Your task to perform on an android device: check google app version Image 0: 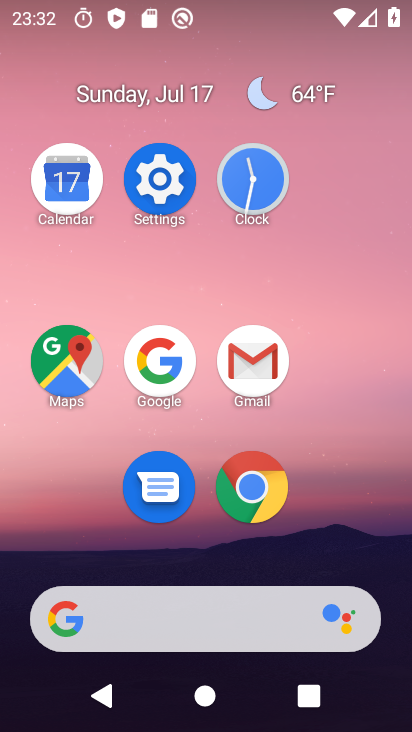
Step 0: click (157, 368)
Your task to perform on an android device: check google app version Image 1: 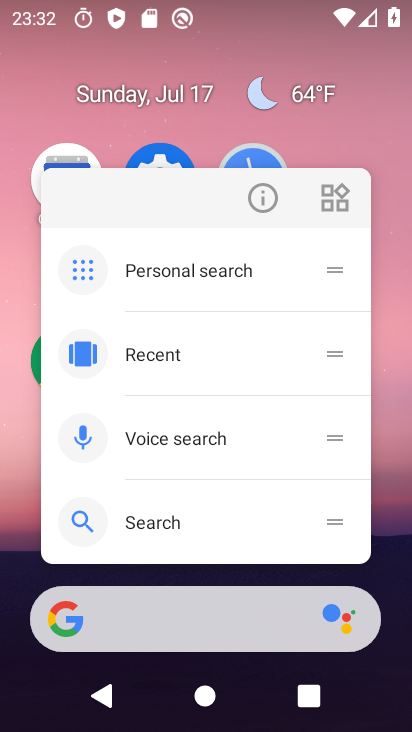
Step 1: click (264, 186)
Your task to perform on an android device: check google app version Image 2: 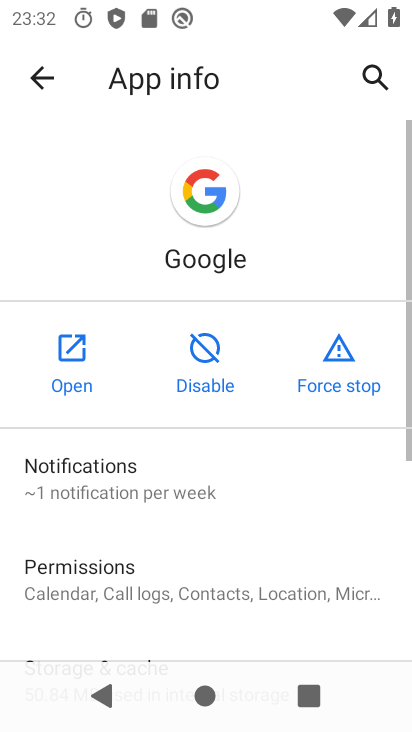
Step 2: drag from (298, 550) to (295, 192)
Your task to perform on an android device: check google app version Image 3: 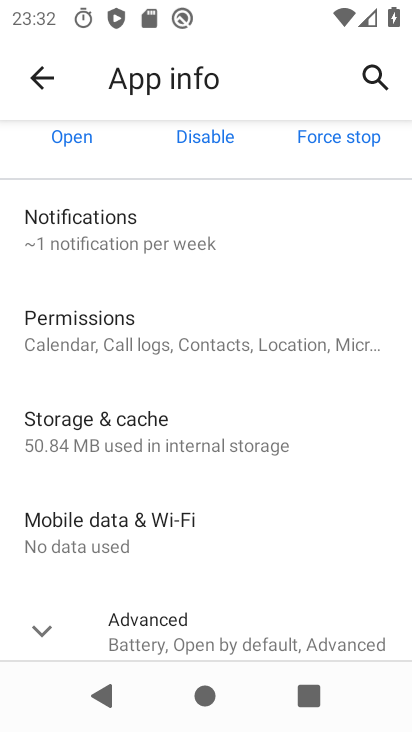
Step 3: drag from (264, 527) to (289, 195)
Your task to perform on an android device: check google app version Image 4: 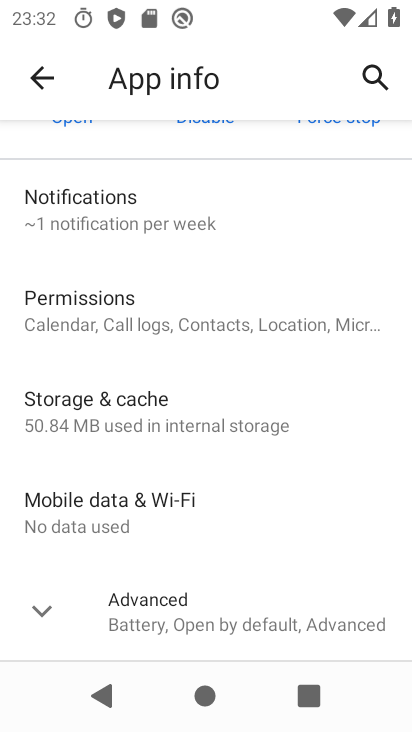
Step 4: click (147, 616)
Your task to perform on an android device: check google app version Image 5: 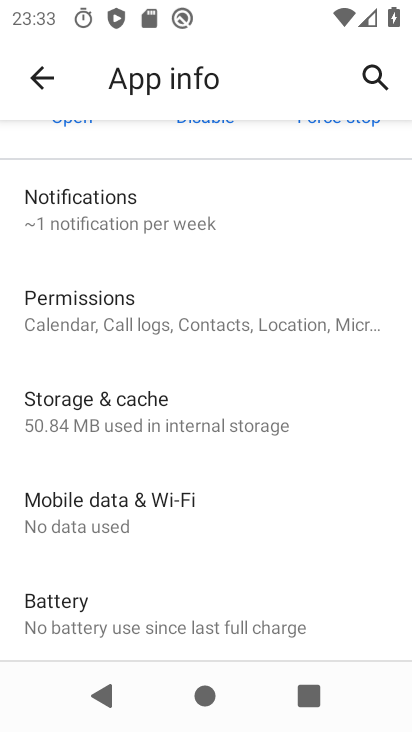
Step 5: task complete